Your task to perform on an android device: Open Google Image 0: 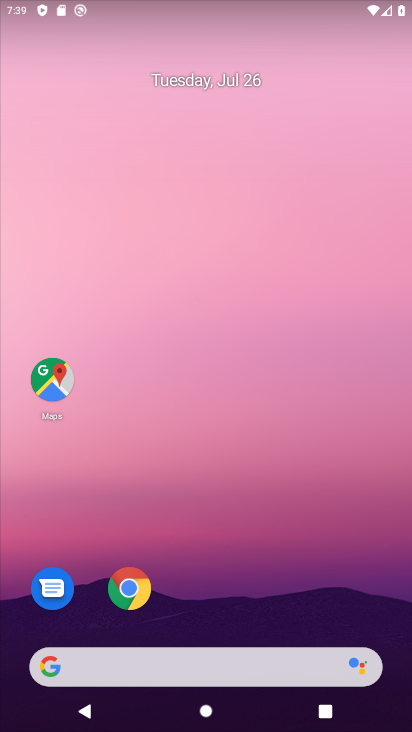
Step 0: drag from (220, 637) to (304, 163)
Your task to perform on an android device: Open Google Image 1: 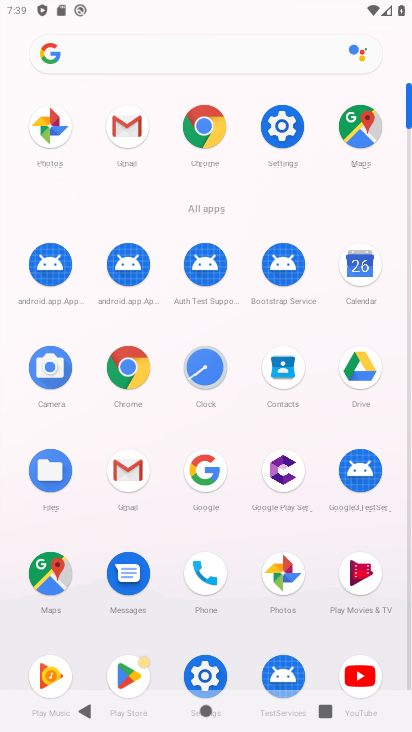
Step 1: click (203, 471)
Your task to perform on an android device: Open Google Image 2: 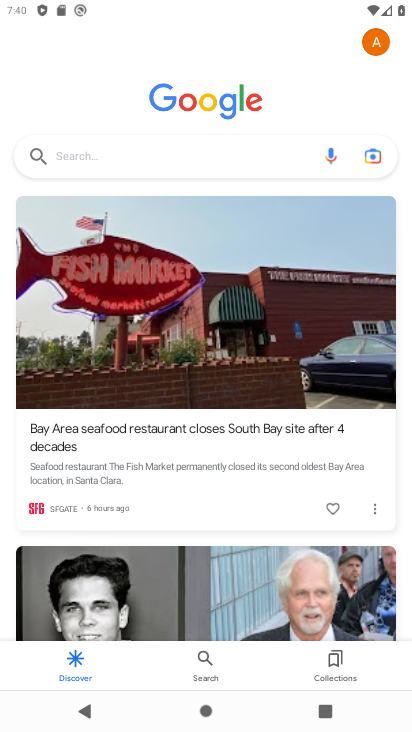
Step 2: task complete